Your task to perform on an android device: check the backup settings in the google photos Image 0: 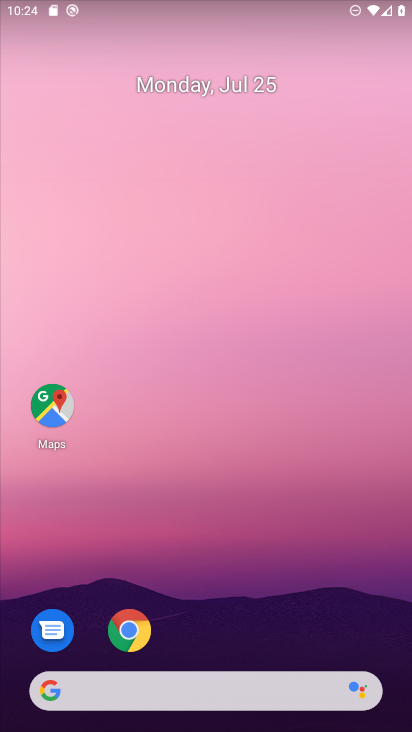
Step 0: drag from (299, 559) to (264, 51)
Your task to perform on an android device: check the backup settings in the google photos Image 1: 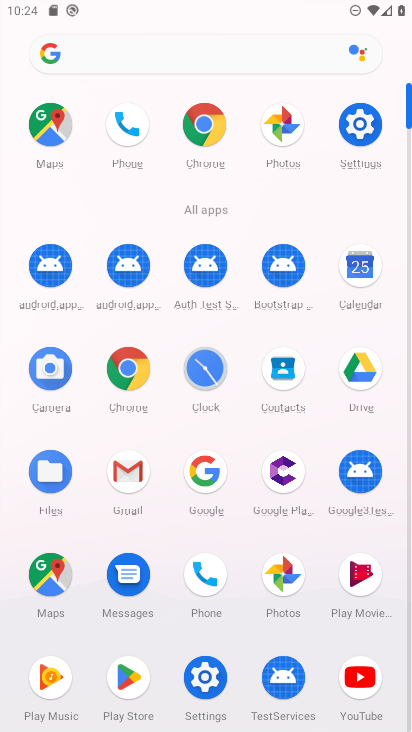
Step 1: click (275, 577)
Your task to perform on an android device: check the backup settings in the google photos Image 2: 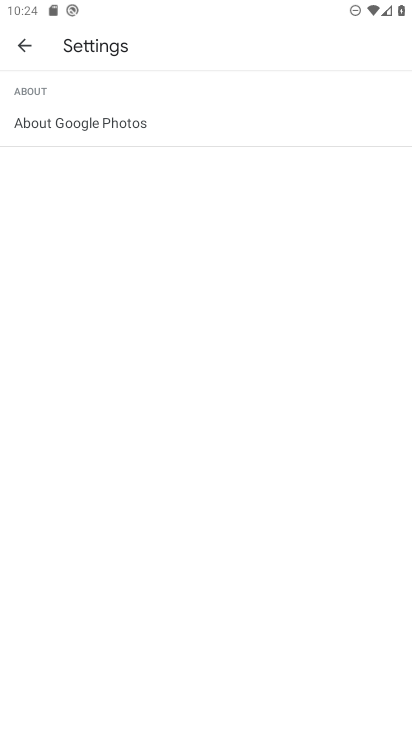
Step 2: click (18, 42)
Your task to perform on an android device: check the backup settings in the google photos Image 3: 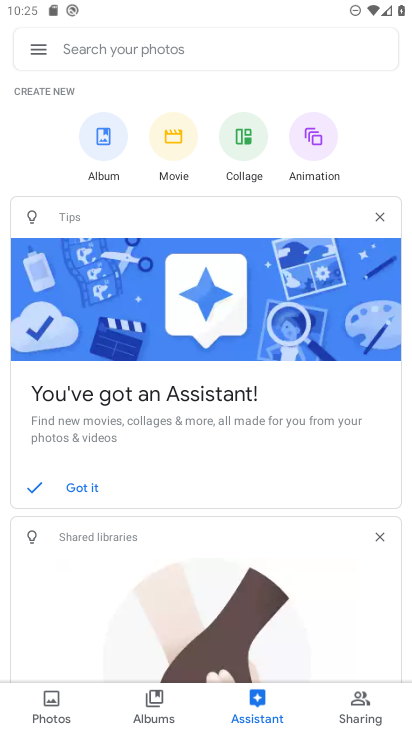
Step 3: click (31, 44)
Your task to perform on an android device: check the backup settings in the google photos Image 4: 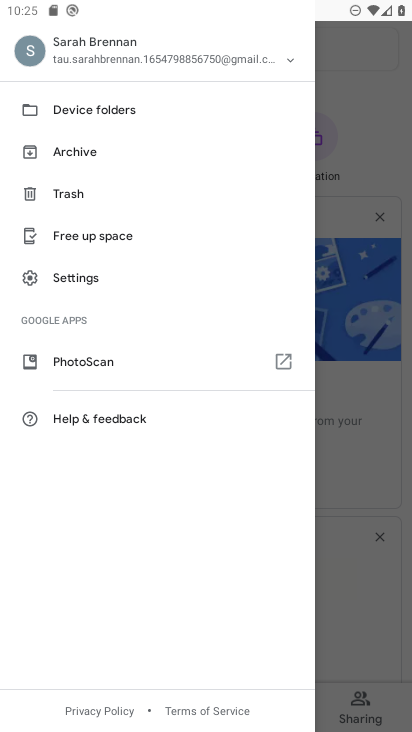
Step 4: click (95, 290)
Your task to perform on an android device: check the backup settings in the google photos Image 5: 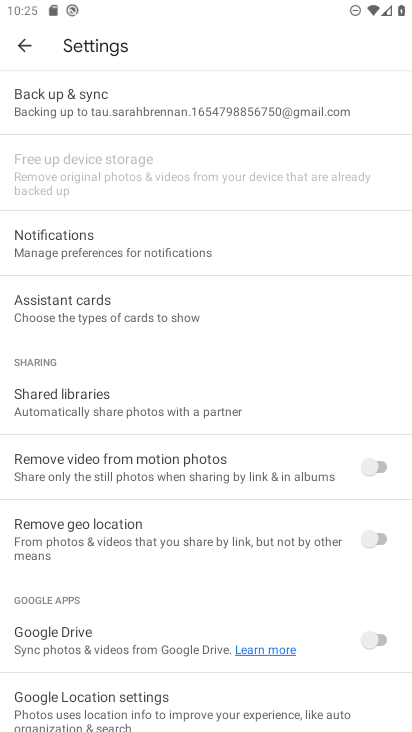
Step 5: click (205, 107)
Your task to perform on an android device: check the backup settings in the google photos Image 6: 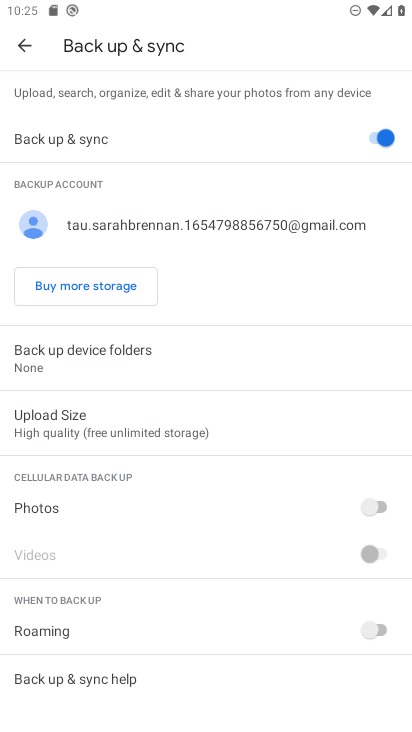
Step 6: task complete